Your task to perform on an android device: Search for alienware aurora on amazon, select the first entry, add it to the cart, then select checkout. Image 0: 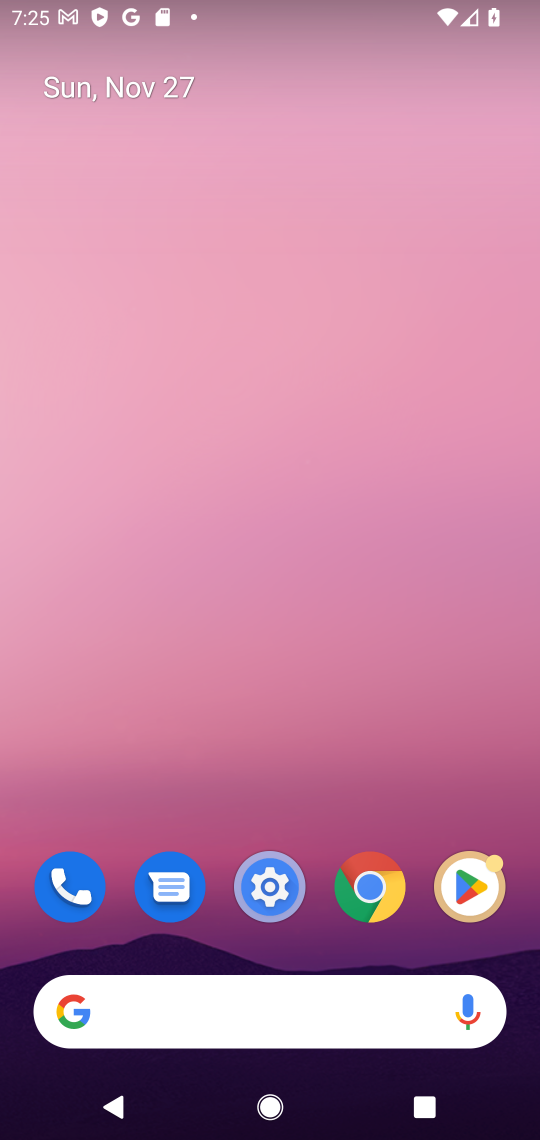
Step 0: press home button
Your task to perform on an android device: Search for alienware aurora on amazon, select the first entry, add it to the cart, then select checkout. Image 1: 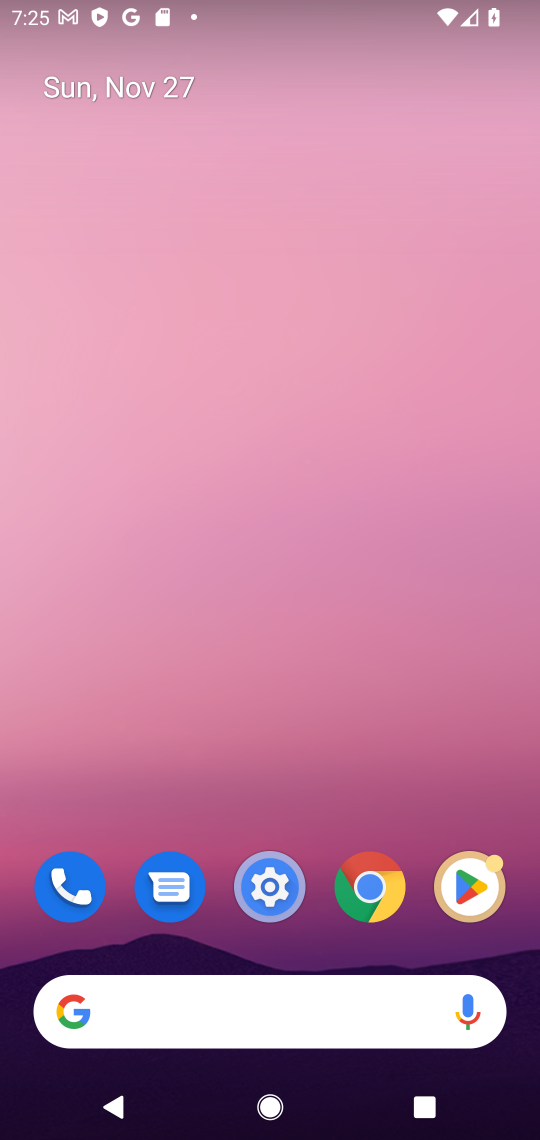
Step 1: click (233, 1030)
Your task to perform on an android device: Search for alienware aurora on amazon, select the first entry, add it to the cart, then select checkout. Image 2: 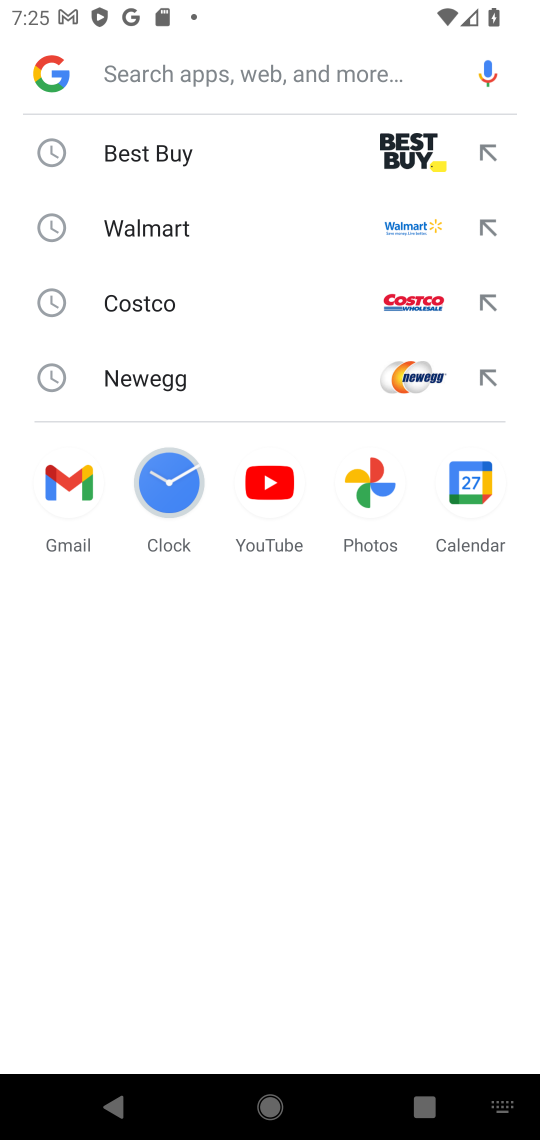
Step 2: type "amazon"
Your task to perform on an android device: Search for alienware aurora on amazon, select the first entry, add it to the cart, then select checkout. Image 3: 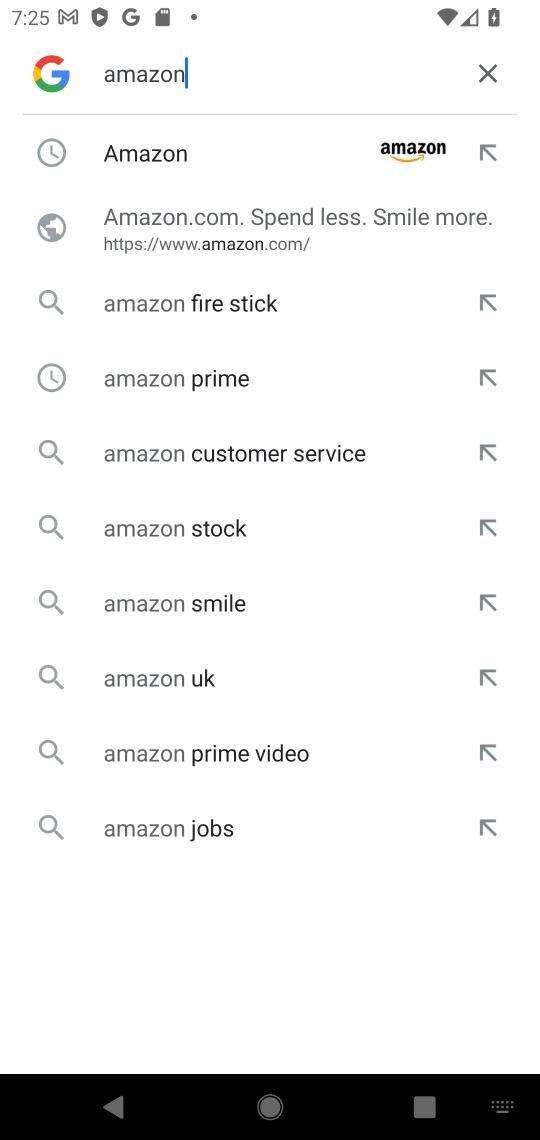
Step 3: click (160, 151)
Your task to perform on an android device: Search for alienware aurora on amazon, select the first entry, add it to the cart, then select checkout. Image 4: 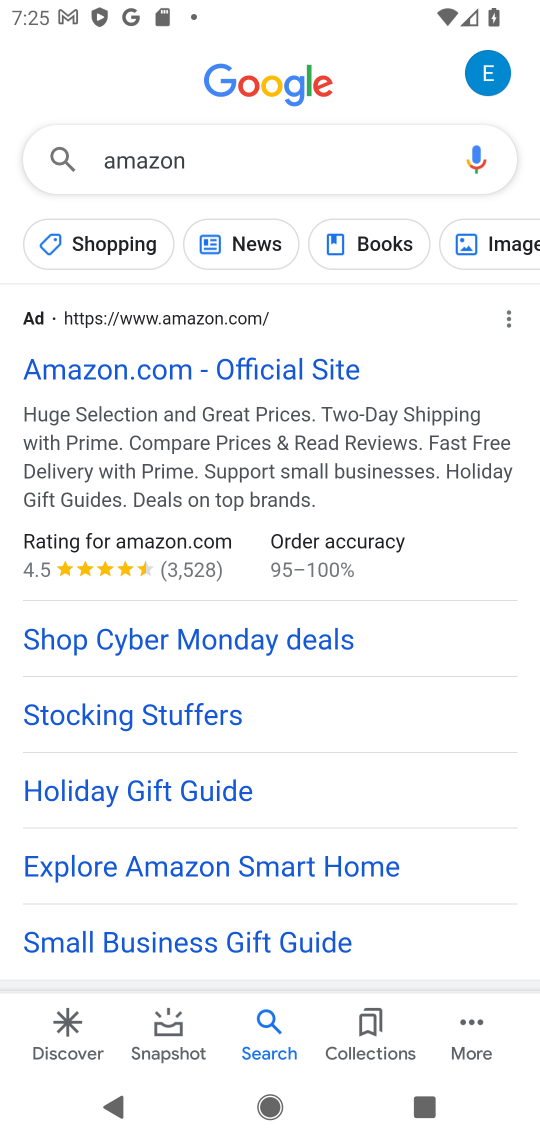
Step 4: click (124, 358)
Your task to perform on an android device: Search for alienware aurora on amazon, select the first entry, add it to the cart, then select checkout. Image 5: 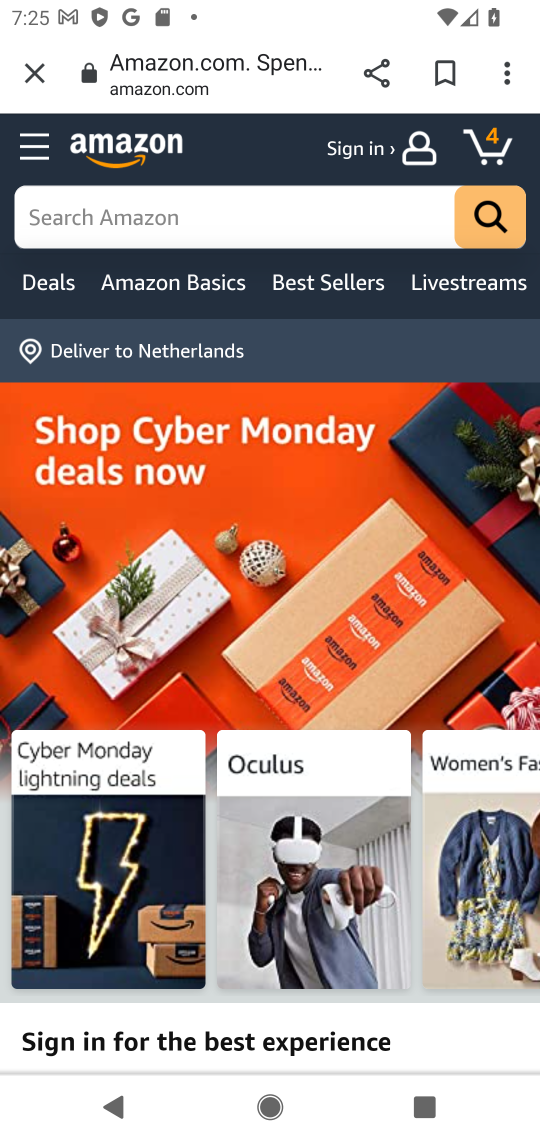
Step 5: click (143, 237)
Your task to perform on an android device: Search for alienware aurora on amazon, select the first entry, add it to the cart, then select checkout. Image 6: 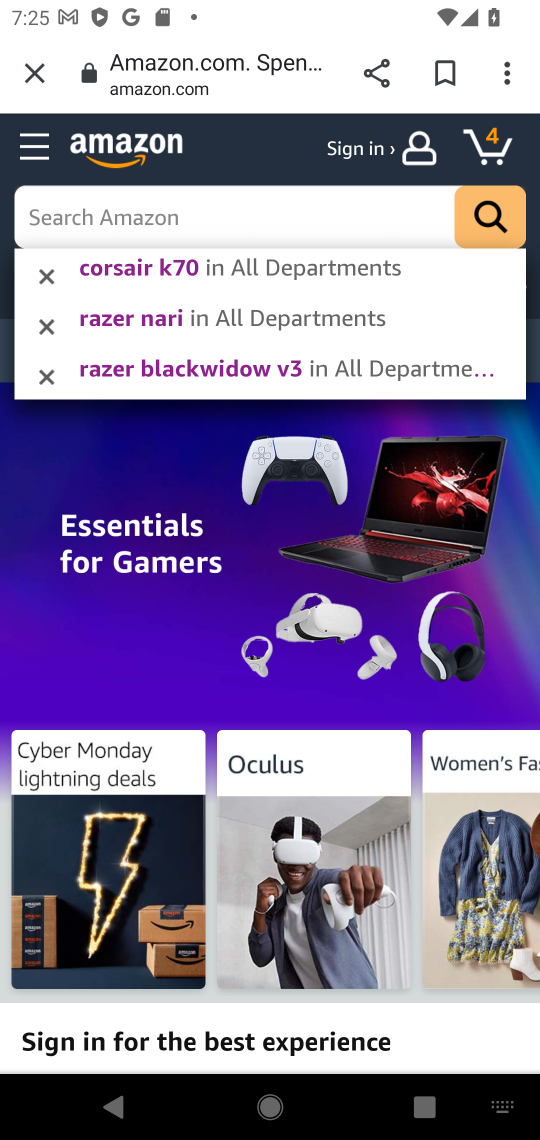
Step 6: type "alienwear aura"
Your task to perform on an android device: Search for alienware aurora on amazon, select the first entry, add it to the cart, then select checkout. Image 7: 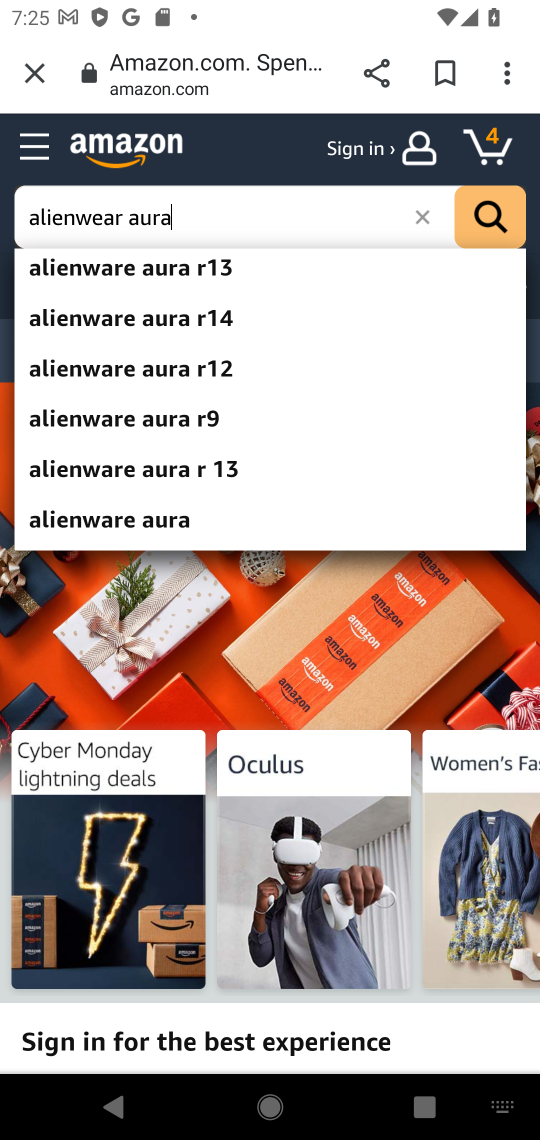
Step 7: click (481, 214)
Your task to perform on an android device: Search for alienware aurora on amazon, select the first entry, add it to the cart, then select checkout. Image 8: 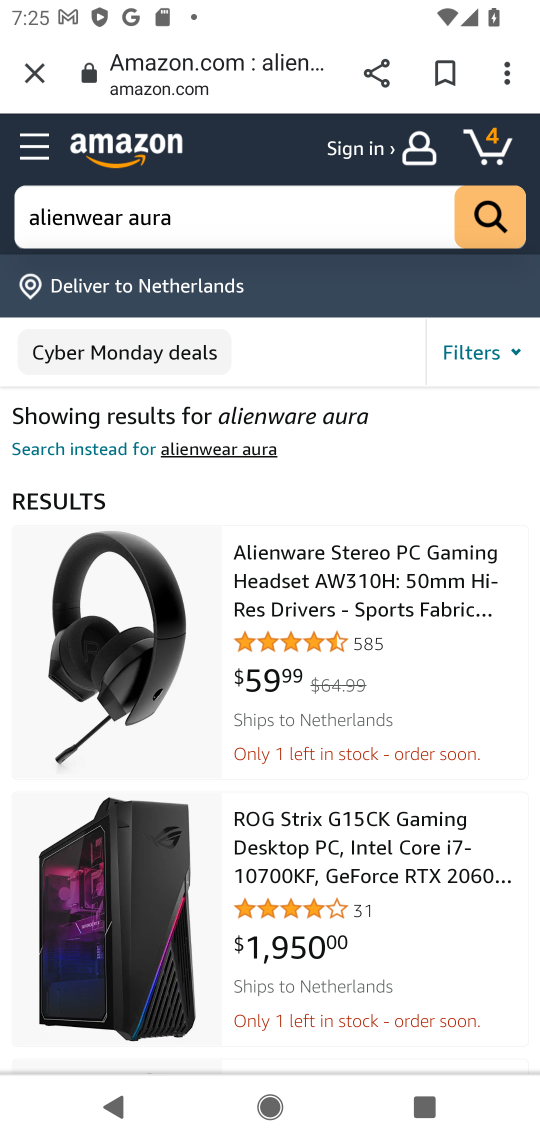
Step 8: click (362, 554)
Your task to perform on an android device: Search for alienware aurora on amazon, select the first entry, add it to the cart, then select checkout. Image 9: 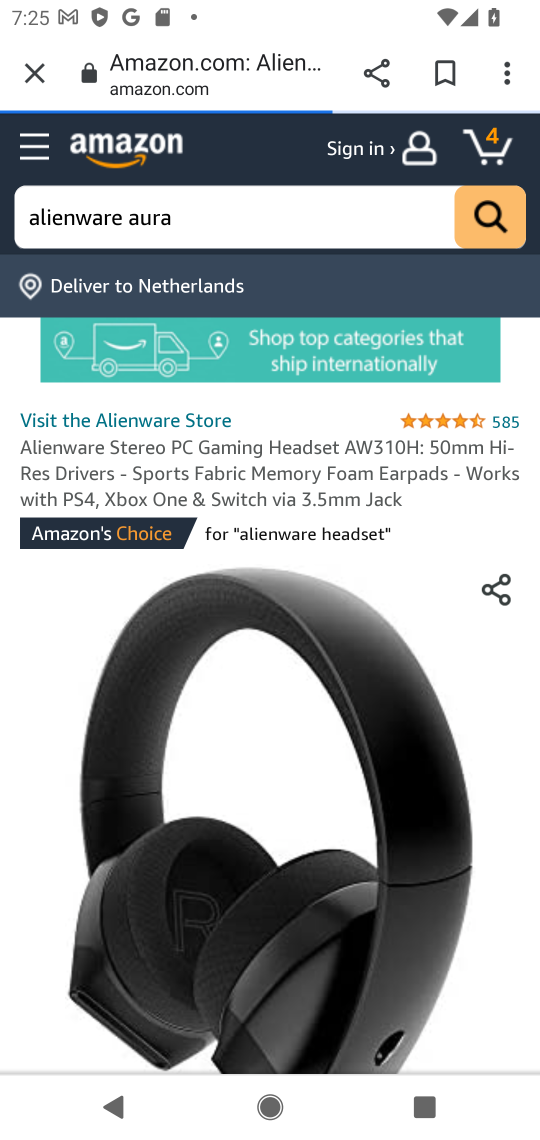
Step 9: drag from (324, 873) to (308, 474)
Your task to perform on an android device: Search for alienware aurora on amazon, select the first entry, add it to the cart, then select checkout. Image 10: 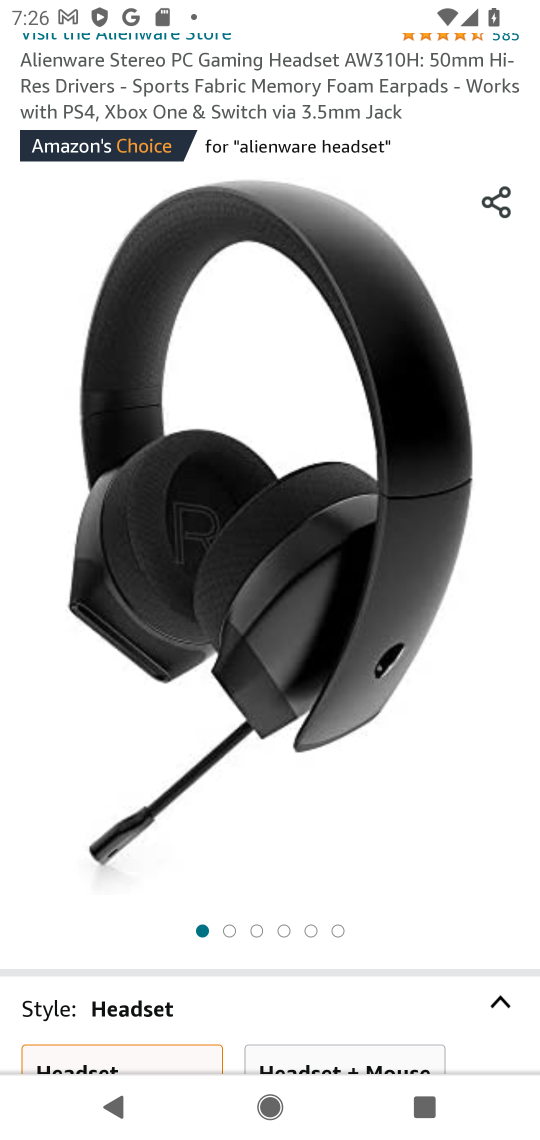
Step 10: drag from (442, 912) to (362, 277)
Your task to perform on an android device: Search for alienware aurora on amazon, select the first entry, add it to the cart, then select checkout. Image 11: 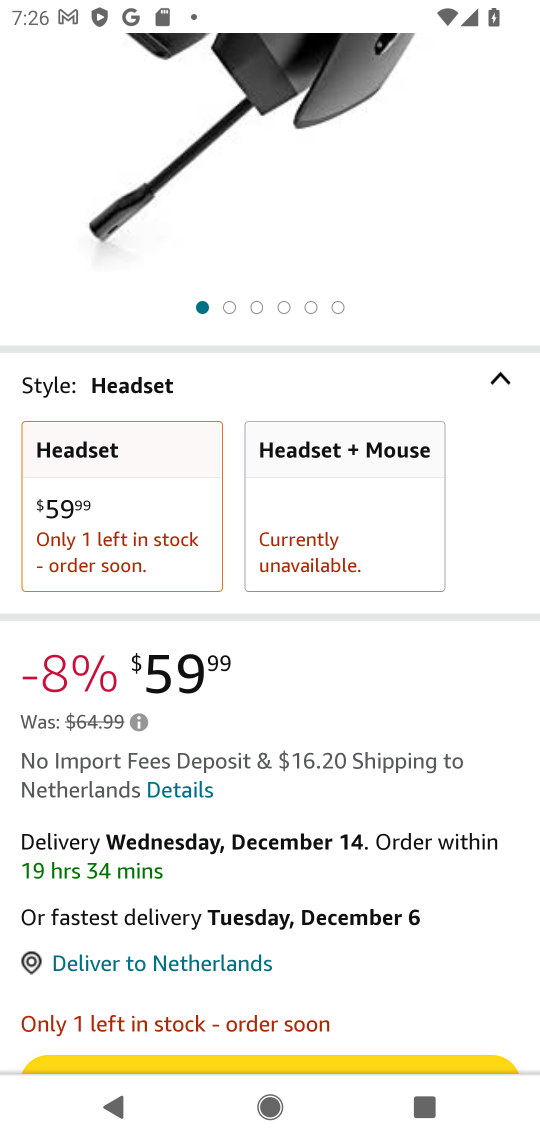
Step 11: drag from (389, 842) to (307, 315)
Your task to perform on an android device: Search for alienware aurora on amazon, select the first entry, add it to the cart, then select checkout. Image 12: 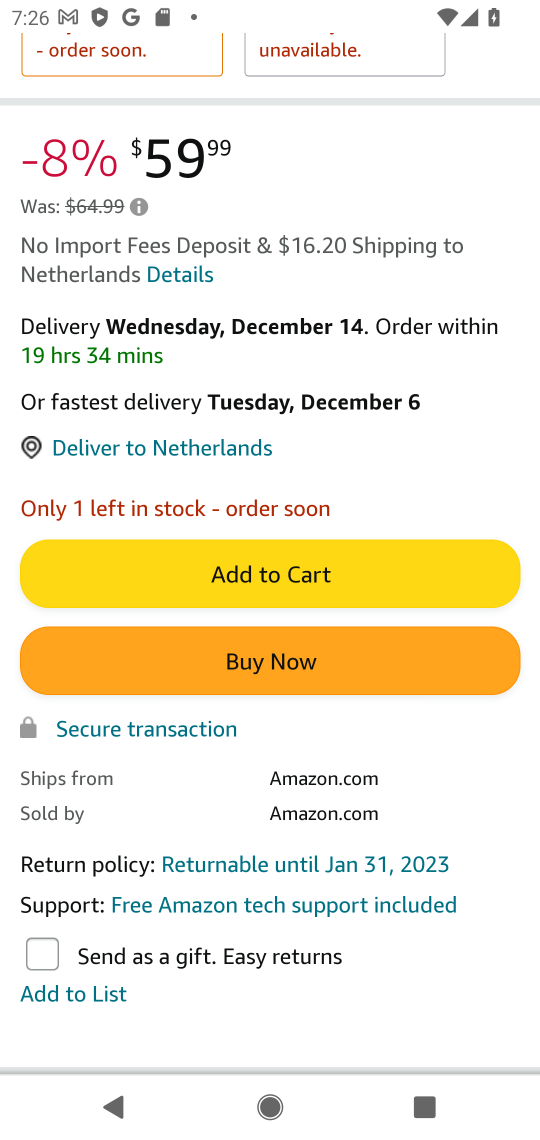
Step 12: click (319, 565)
Your task to perform on an android device: Search for alienware aurora on amazon, select the first entry, add it to the cart, then select checkout. Image 13: 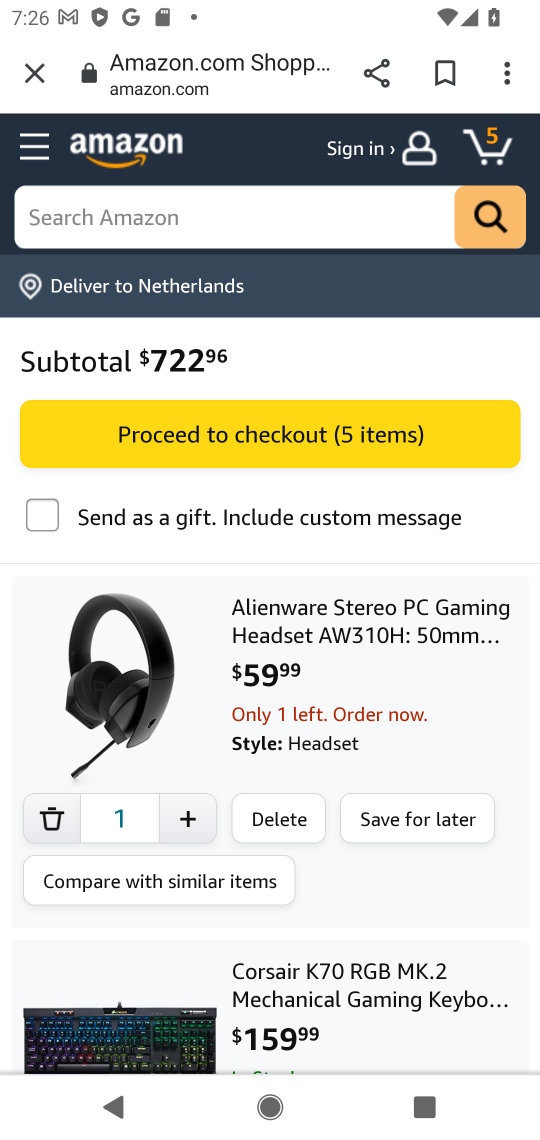
Step 13: task complete